Your task to perform on an android device: read, delete, or share a saved page in the chrome app Image 0: 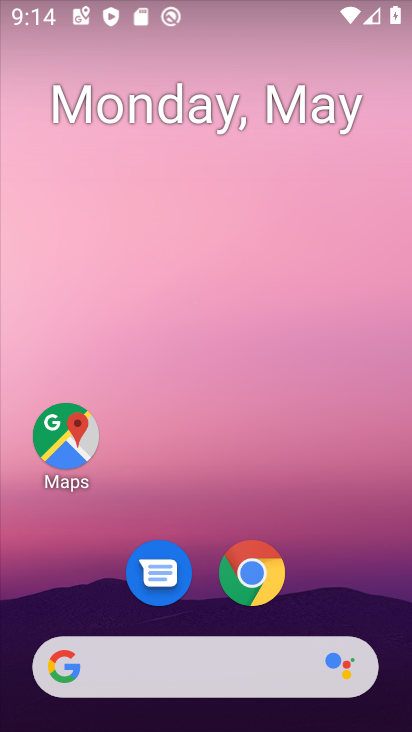
Step 0: click (274, 556)
Your task to perform on an android device: read, delete, or share a saved page in the chrome app Image 1: 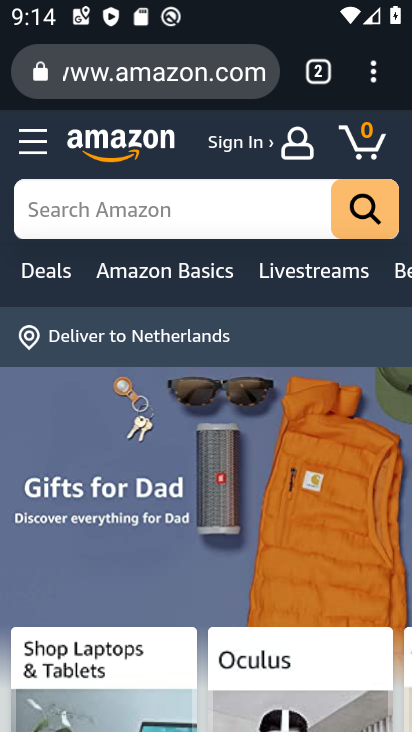
Step 1: click (381, 69)
Your task to perform on an android device: read, delete, or share a saved page in the chrome app Image 2: 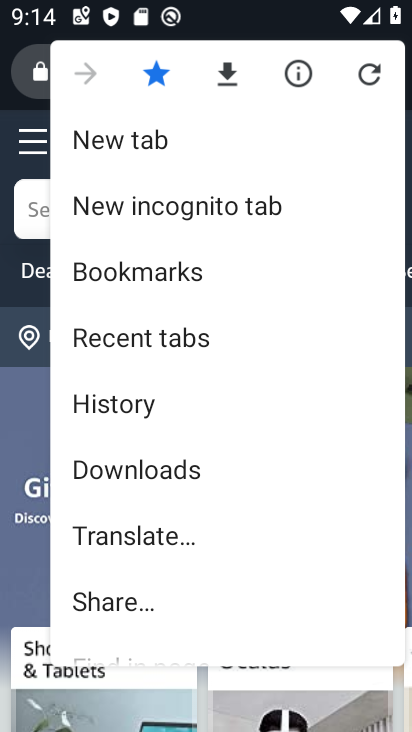
Step 2: drag from (200, 616) to (257, 169)
Your task to perform on an android device: read, delete, or share a saved page in the chrome app Image 3: 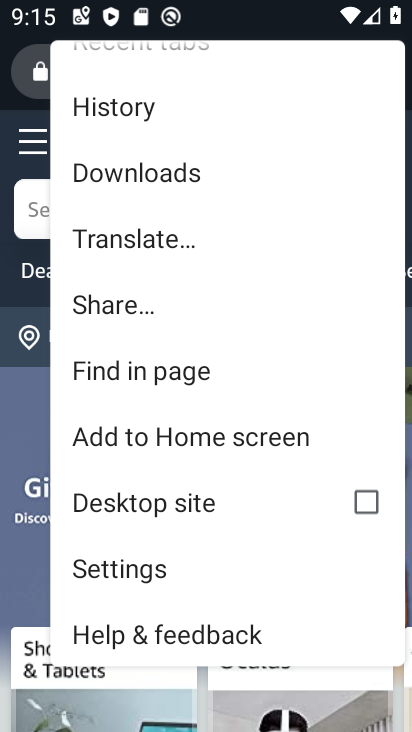
Step 3: click (151, 204)
Your task to perform on an android device: read, delete, or share a saved page in the chrome app Image 4: 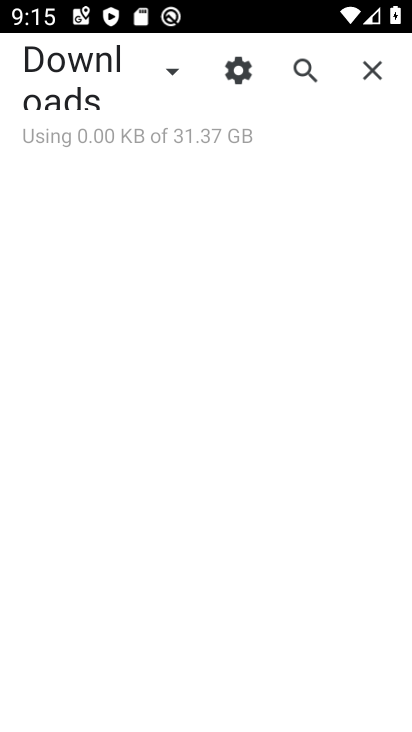
Step 4: task complete